Your task to perform on an android device: turn on improve location accuracy Image 0: 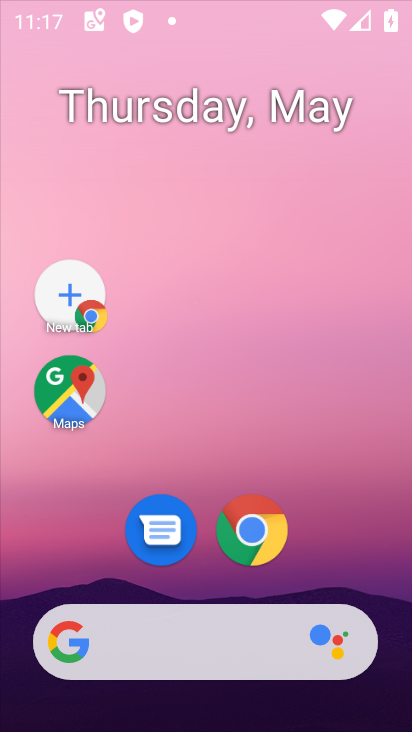
Step 0: press back button
Your task to perform on an android device: turn on improve location accuracy Image 1: 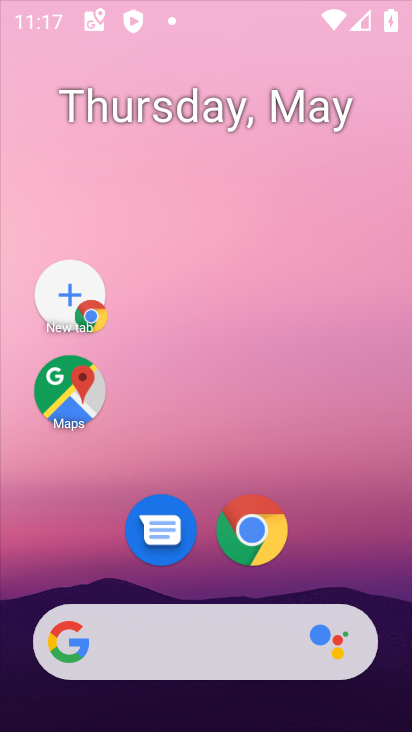
Step 1: click (273, 209)
Your task to perform on an android device: turn on improve location accuracy Image 2: 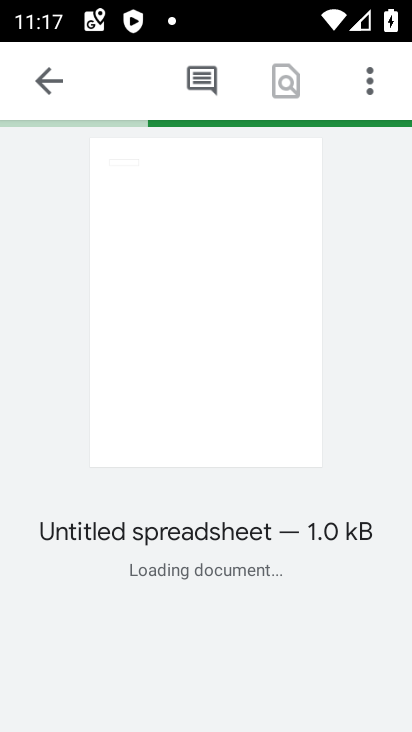
Step 2: press back button
Your task to perform on an android device: turn on improve location accuracy Image 3: 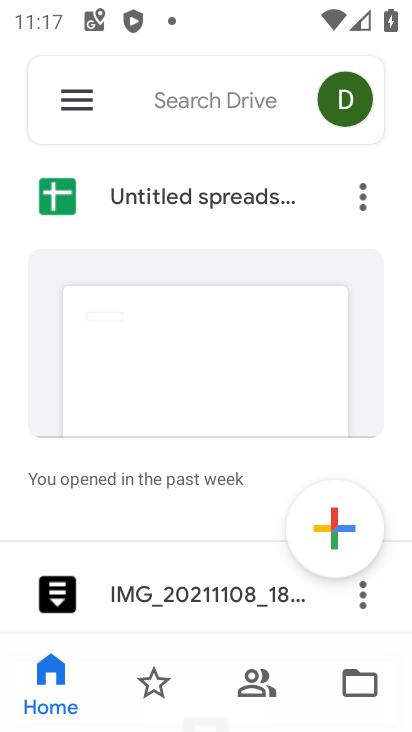
Step 3: press home button
Your task to perform on an android device: turn on improve location accuracy Image 4: 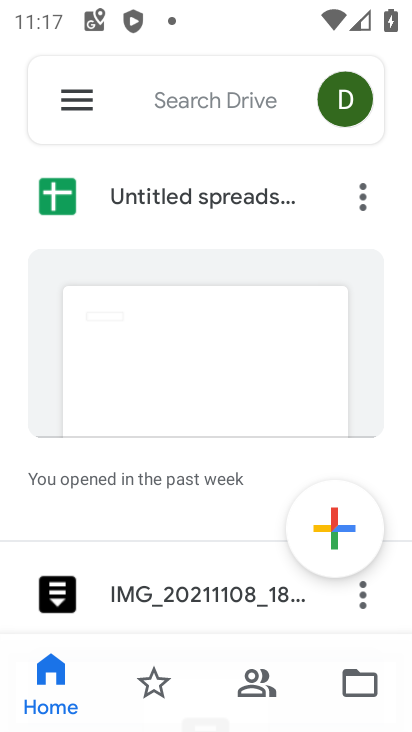
Step 4: press home button
Your task to perform on an android device: turn on improve location accuracy Image 5: 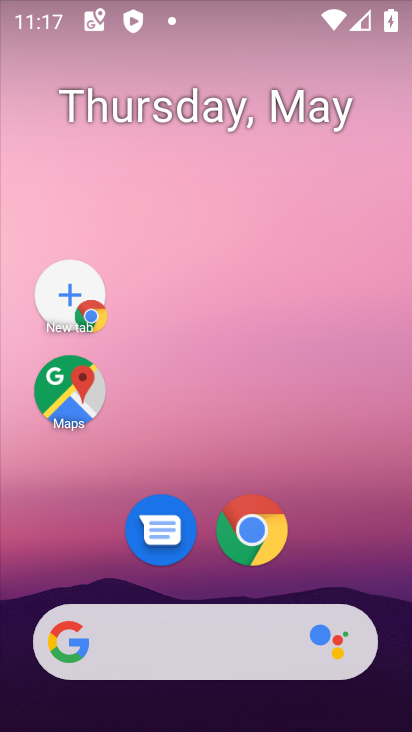
Step 5: drag from (157, 427) to (143, 88)
Your task to perform on an android device: turn on improve location accuracy Image 6: 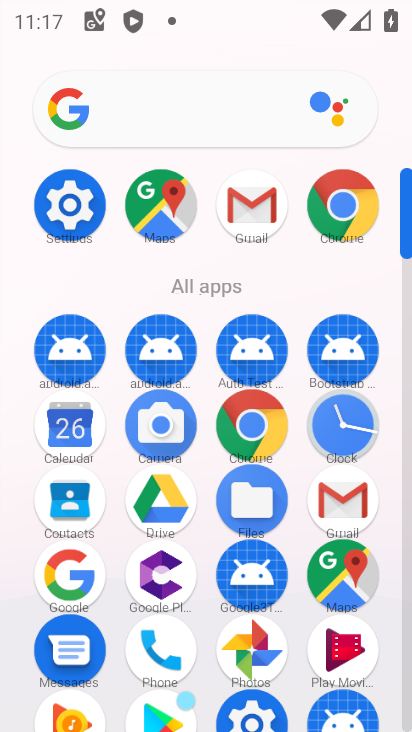
Step 6: click (68, 199)
Your task to perform on an android device: turn on improve location accuracy Image 7: 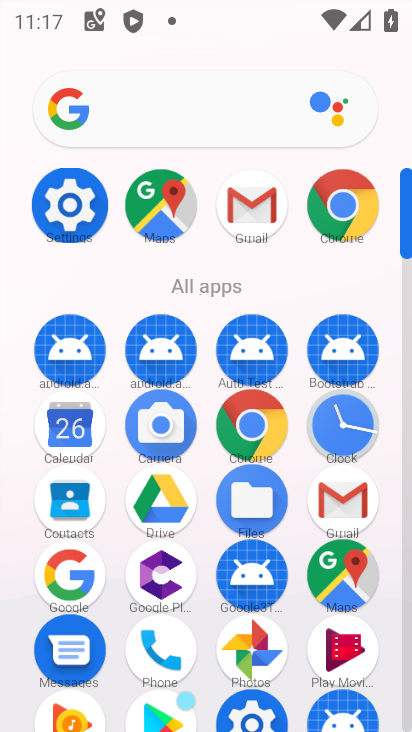
Step 7: click (68, 199)
Your task to perform on an android device: turn on improve location accuracy Image 8: 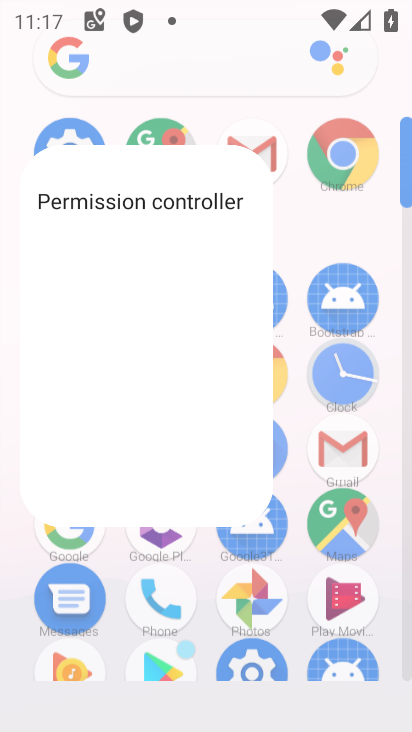
Step 8: click (69, 199)
Your task to perform on an android device: turn on improve location accuracy Image 9: 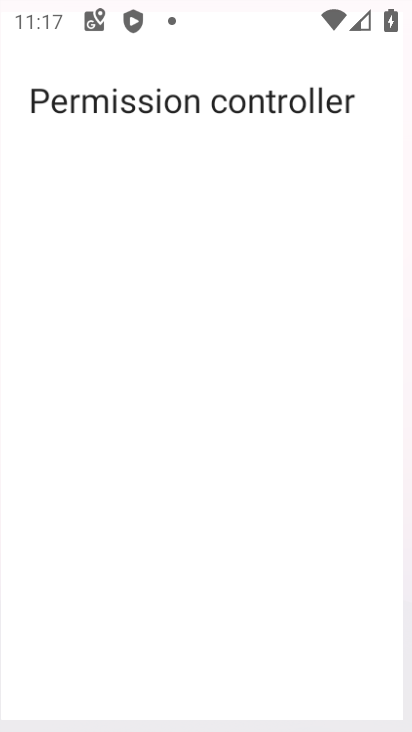
Step 9: click (69, 199)
Your task to perform on an android device: turn on improve location accuracy Image 10: 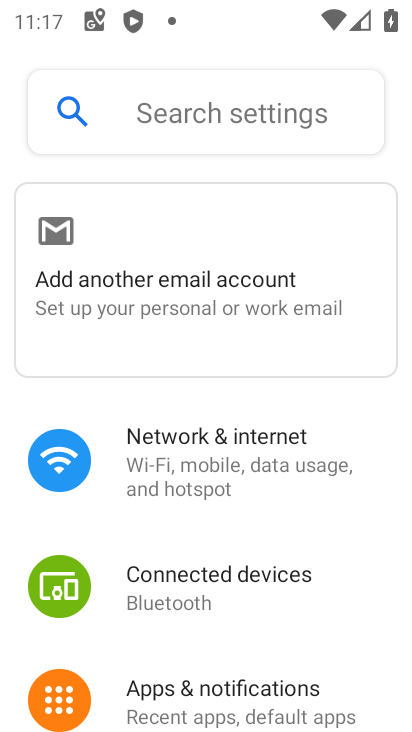
Step 10: drag from (233, 627) to (194, 334)
Your task to perform on an android device: turn on improve location accuracy Image 11: 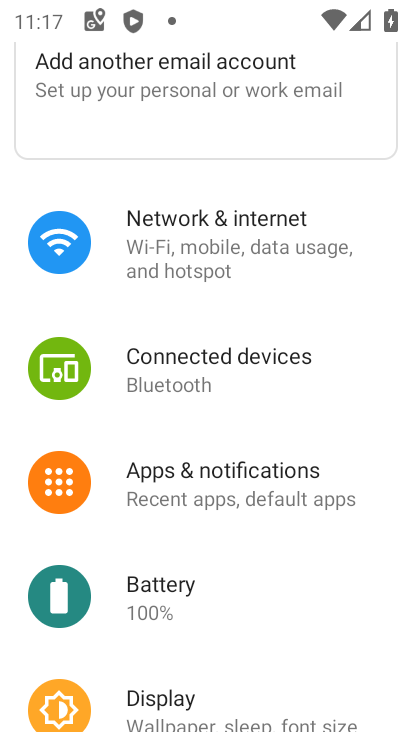
Step 11: drag from (169, 553) to (205, 255)
Your task to perform on an android device: turn on improve location accuracy Image 12: 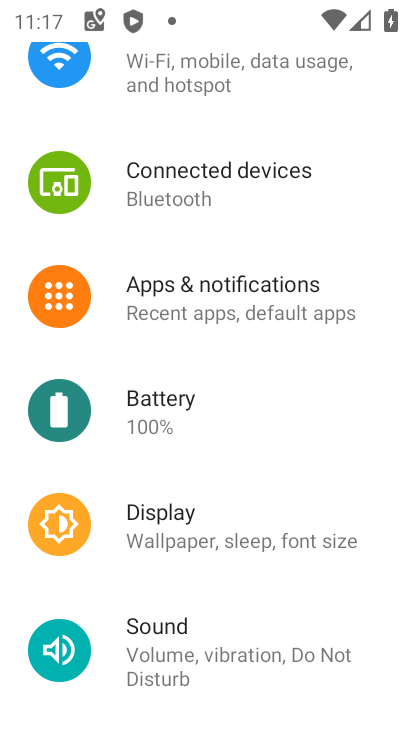
Step 12: drag from (196, 617) to (197, 229)
Your task to perform on an android device: turn on improve location accuracy Image 13: 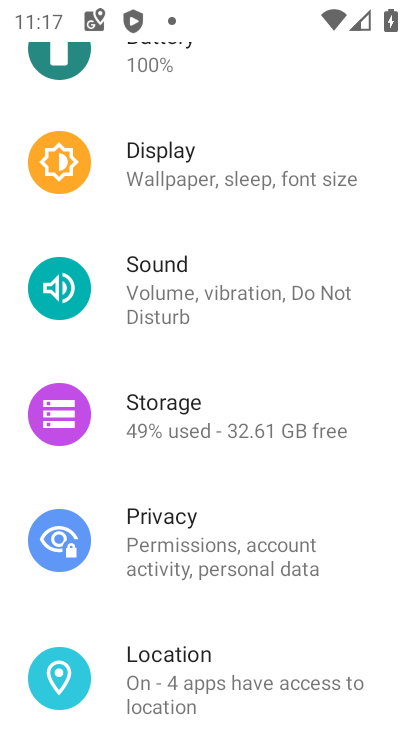
Step 13: drag from (169, 504) to (204, 133)
Your task to perform on an android device: turn on improve location accuracy Image 14: 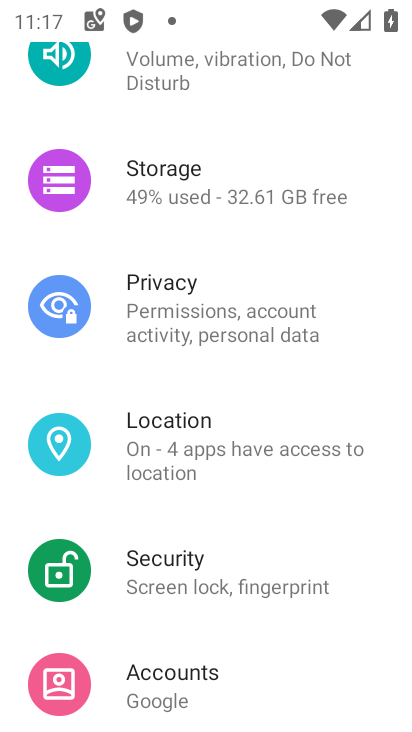
Step 14: drag from (190, 418) to (189, 214)
Your task to perform on an android device: turn on improve location accuracy Image 15: 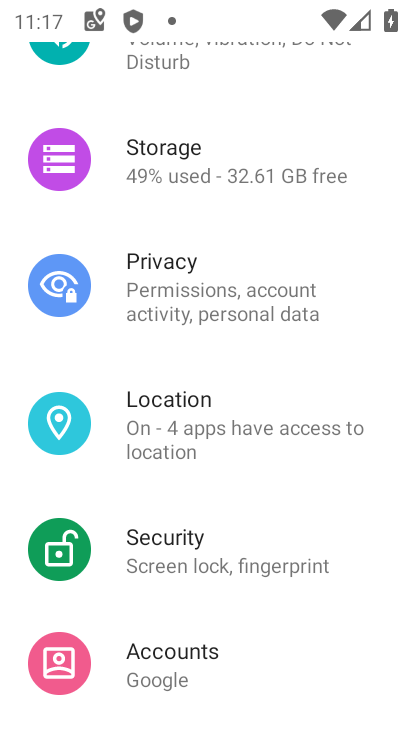
Step 15: click (177, 414)
Your task to perform on an android device: turn on improve location accuracy Image 16: 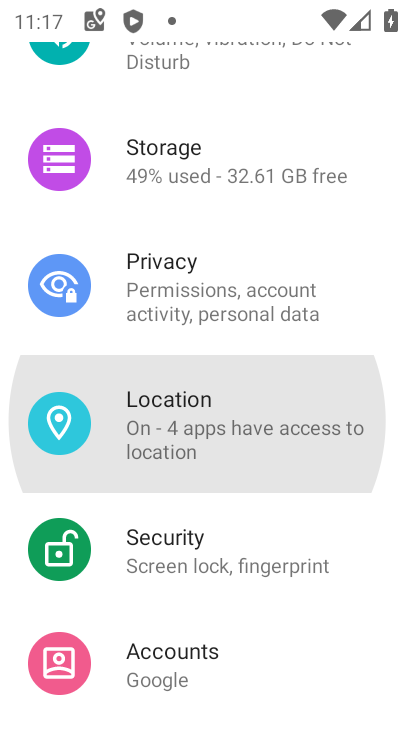
Step 16: click (178, 415)
Your task to perform on an android device: turn on improve location accuracy Image 17: 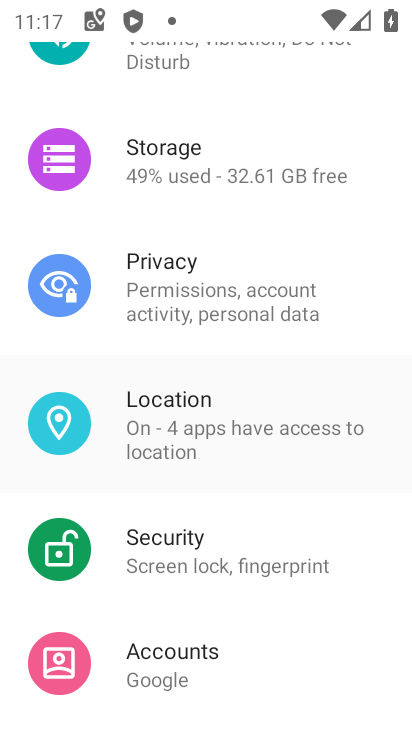
Step 17: click (178, 415)
Your task to perform on an android device: turn on improve location accuracy Image 18: 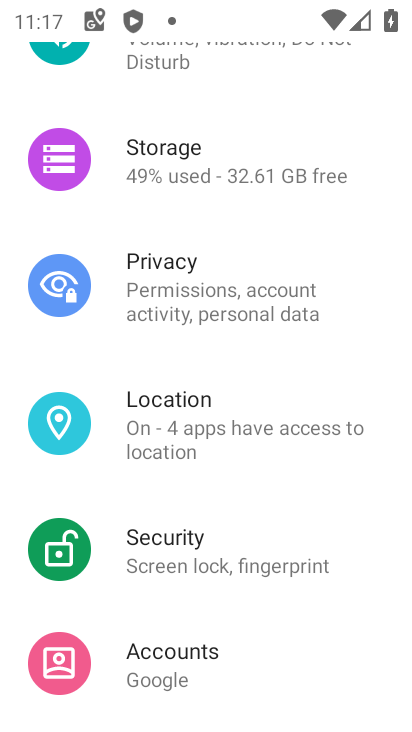
Step 18: click (178, 415)
Your task to perform on an android device: turn on improve location accuracy Image 19: 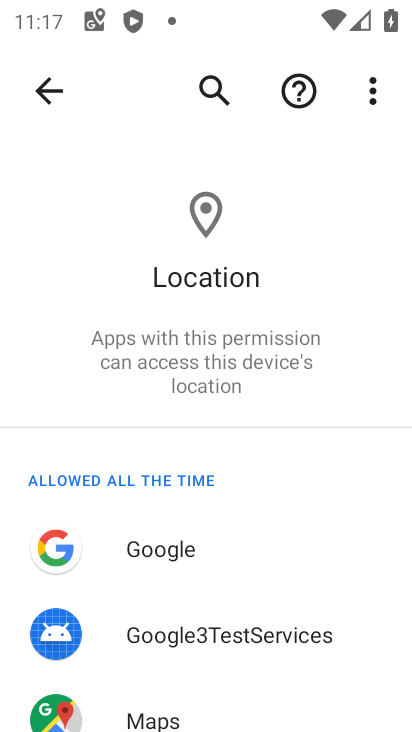
Step 19: drag from (265, 473) to (220, 197)
Your task to perform on an android device: turn on improve location accuracy Image 20: 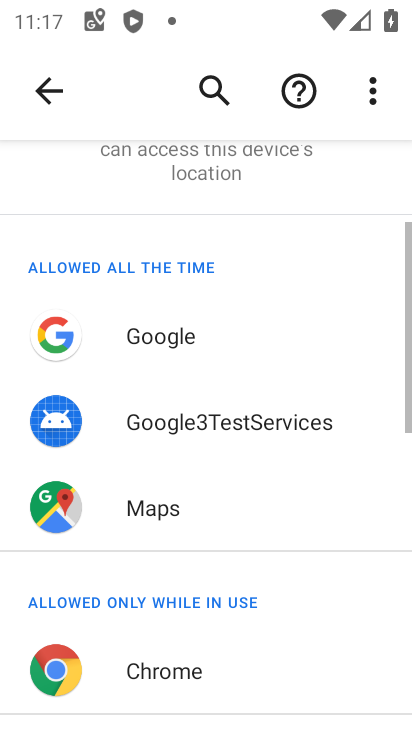
Step 20: drag from (212, 460) to (172, 238)
Your task to perform on an android device: turn on improve location accuracy Image 21: 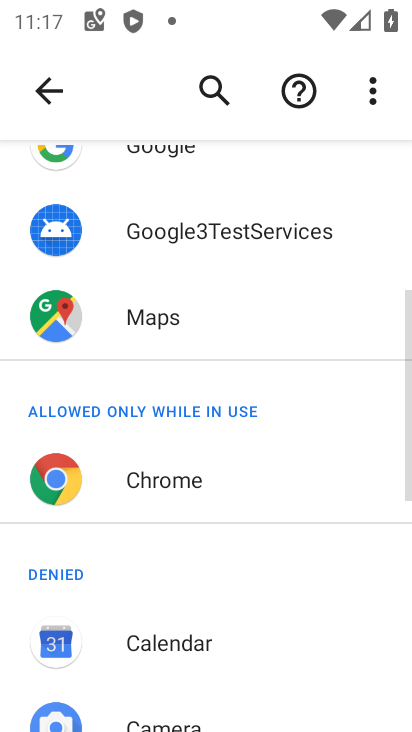
Step 21: click (44, 98)
Your task to perform on an android device: turn on improve location accuracy Image 22: 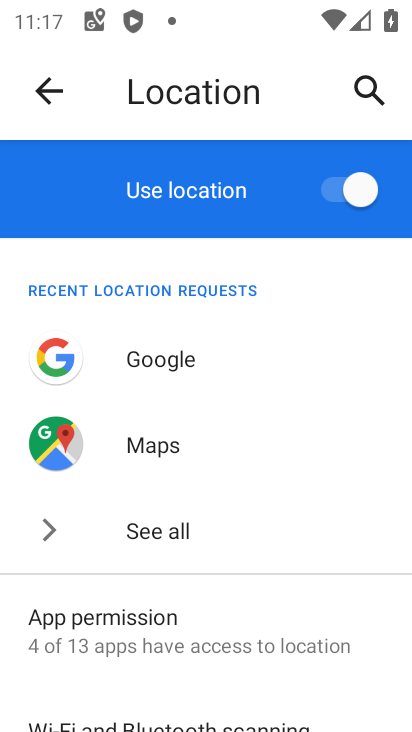
Step 22: drag from (227, 616) to (217, 195)
Your task to perform on an android device: turn on improve location accuracy Image 23: 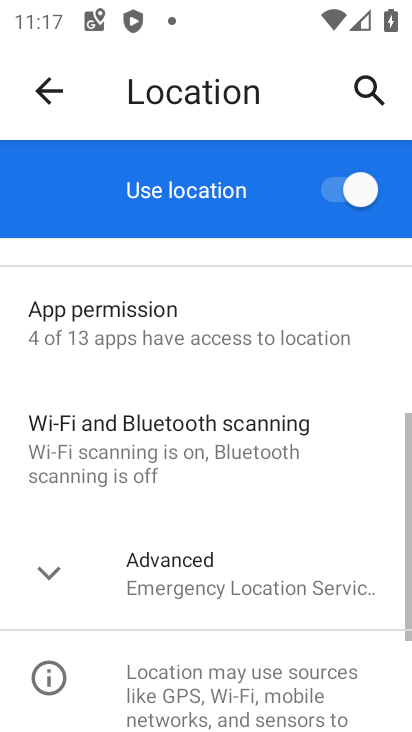
Step 23: drag from (282, 580) to (277, 260)
Your task to perform on an android device: turn on improve location accuracy Image 24: 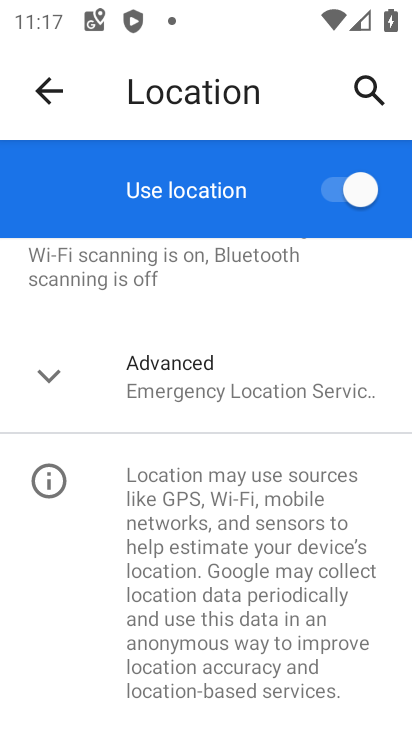
Step 24: click (220, 389)
Your task to perform on an android device: turn on improve location accuracy Image 25: 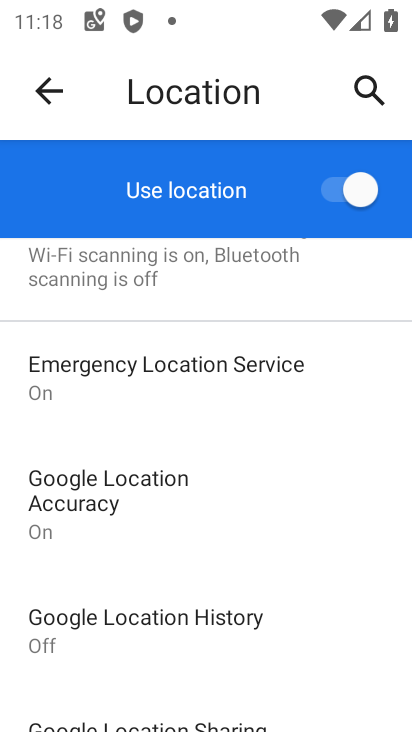
Step 25: click (80, 624)
Your task to perform on an android device: turn on improve location accuracy Image 26: 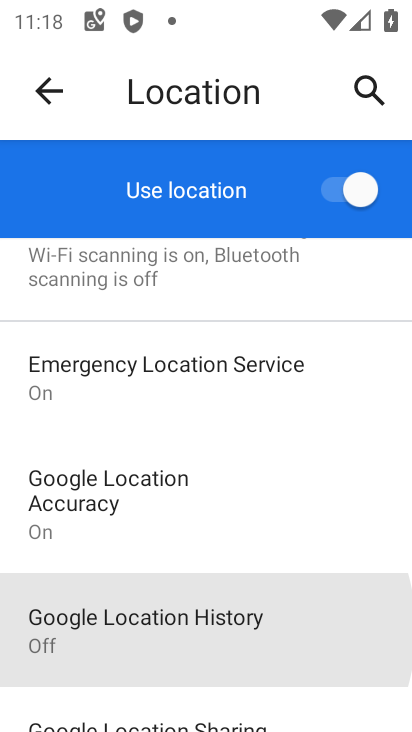
Step 26: click (80, 624)
Your task to perform on an android device: turn on improve location accuracy Image 27: 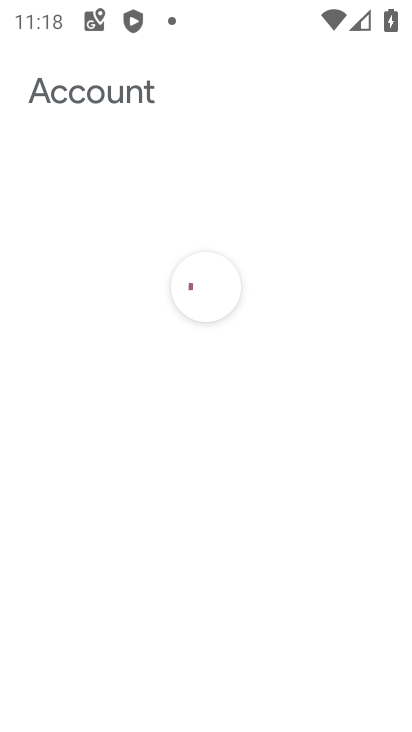
Step 27: click (35, 92)
Your task to perform on an android device: turn on improve location accuracy Image 28: 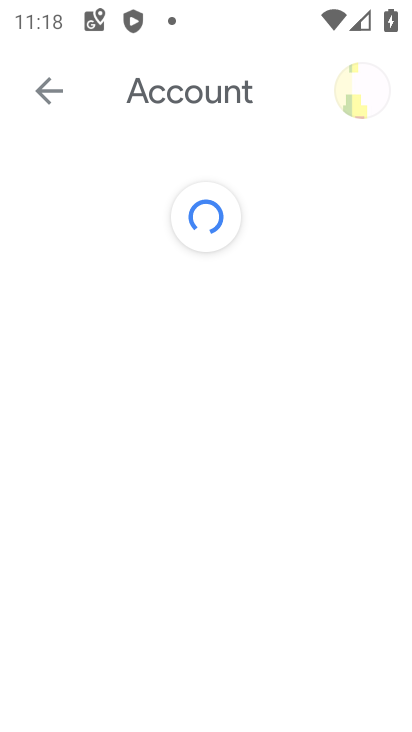
Step 28: click (21, 80)
Your task to perform on an android device: turn on improve location accuracy Image 29: 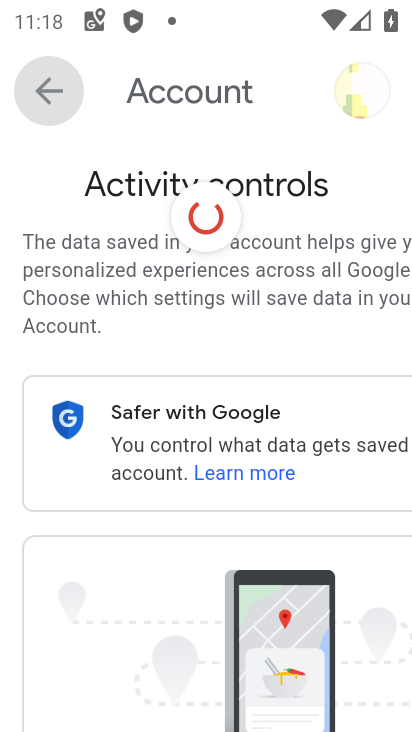
Step 29: click (41, 87)
Your task to perform on an android device: turn on improve location accuracy Image 30: 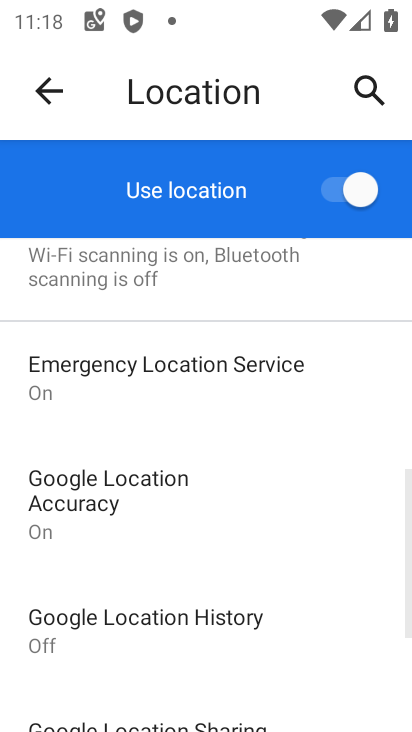
Step 30: click (65, 491)
Your task to perform on an android device: turn on improve location accuracy Image 31: 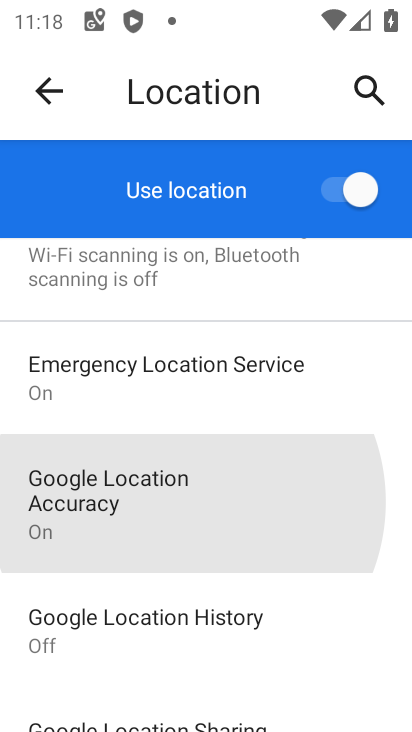
Step 31: click (66, 490)
Your task to perform on an android device: turn on improve location accuracy Image 32: 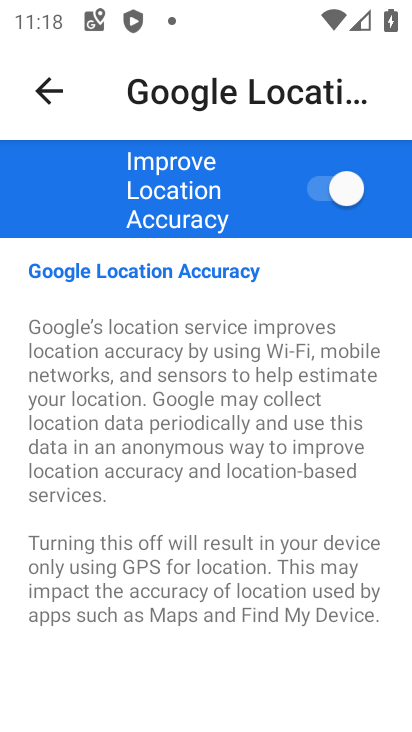
Step 32: task complete